Your task to perform on an android device: change the clock display to digital Image 0: 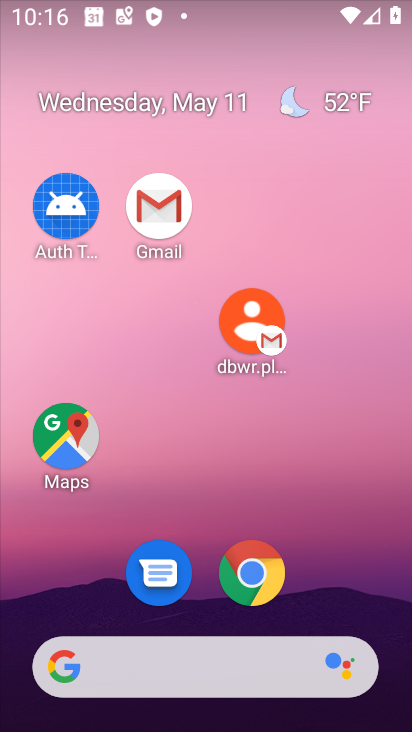
Step 0: drag from (374, 655) to (60, 17)
Your task to perform on an android device: change the clock display to digital Image 1: 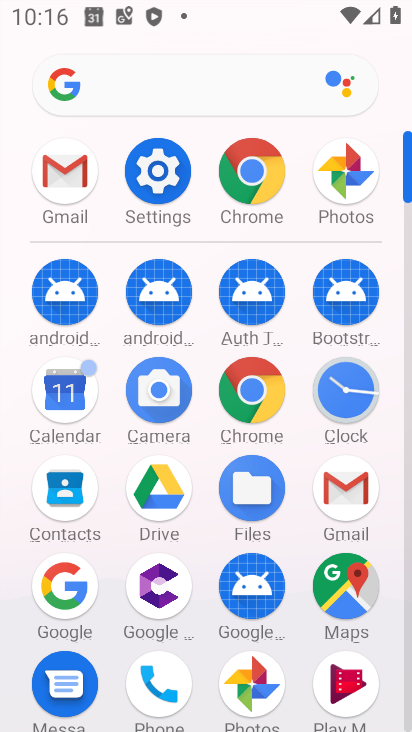
Step 1: click (344, 395)
Your task to perform on an android device: change the clock display to digital Image 2: 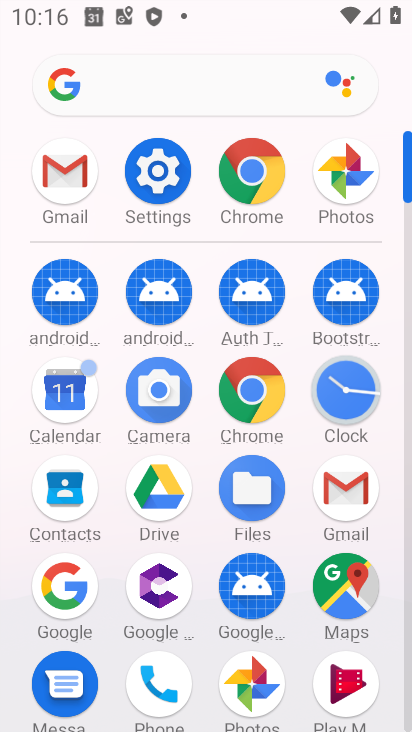
Step 2: click (343, 395)
Your task to perform on an android device: change the clock display to digital Image 3: 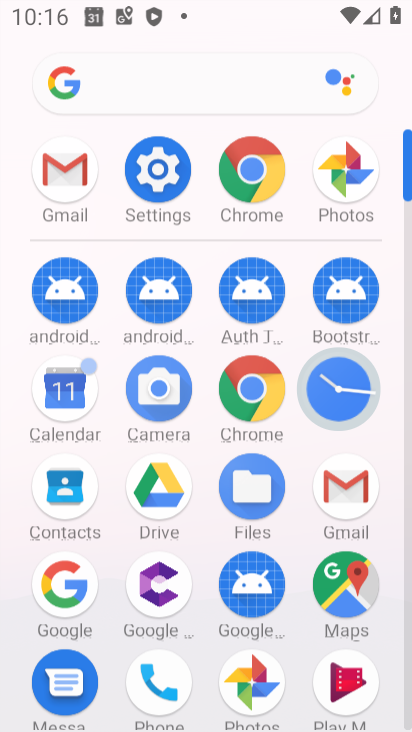
Step 3: click (343, 395)
Your task to perform on an android device: change the clock display to digital Image 4: 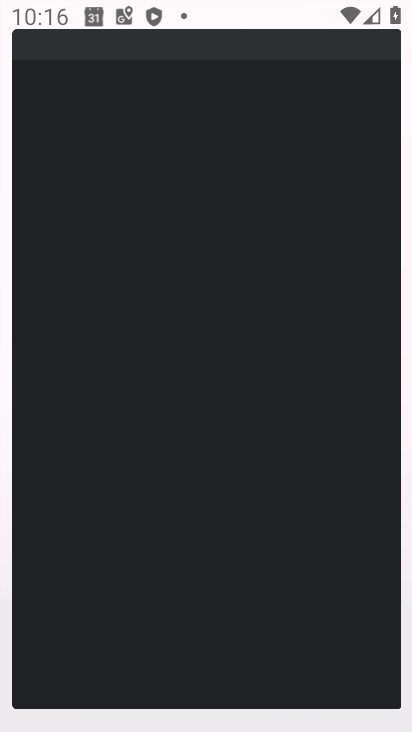
Step 4: click (343, 395)
Your task to perform on an android device: change the clock display to digital Image 5: 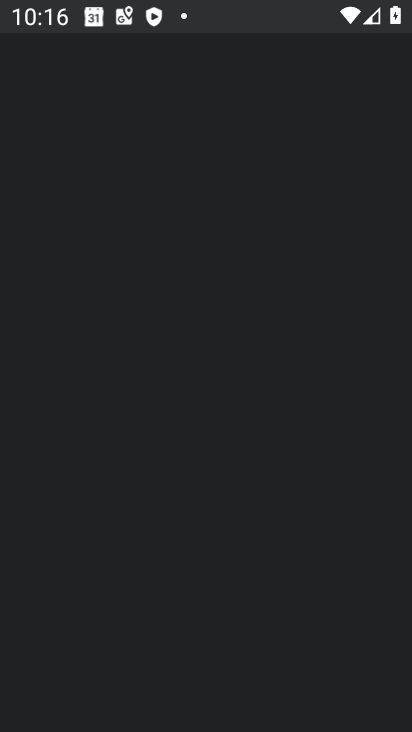
Step 5: click (343, 395)
Your task to perform on an android device: change the clock display to digital Image 6: 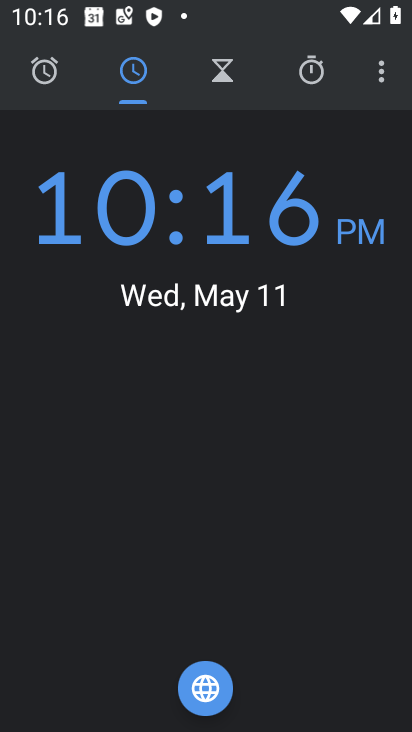
Step 6: click (378, 75)
Your task to perform on an android device: change the clock display to digital Image 7: 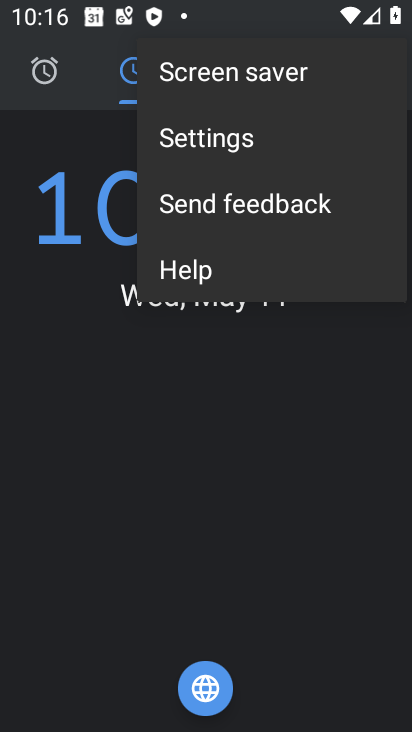
Step 7: click (207, 141)
Your task to perform on an android device: change the clock display to digital Image 8: 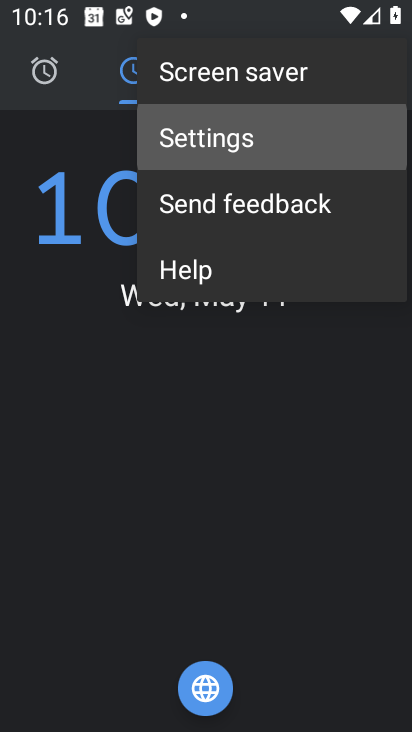
Step 8: click (207, 141)
Your task to perform on an android device: change the clock display to digital Image 9: 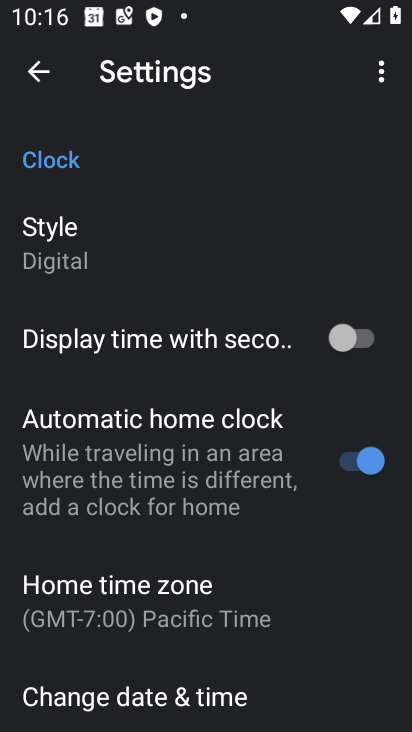
Step 9: drag from (200, 376) to (147, 72)
Your task to perform on an android device: change the clock display to digital Image 10: 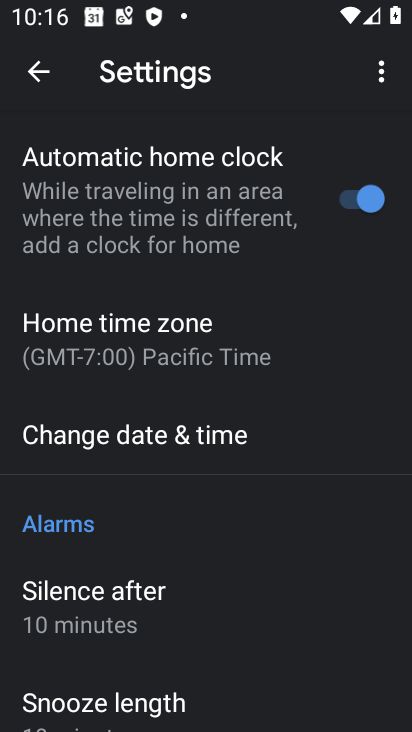
Step 10: drag from (155, 231) to (162, 475)
Your task to perform on an android device: change the clock display to digital Image 11: 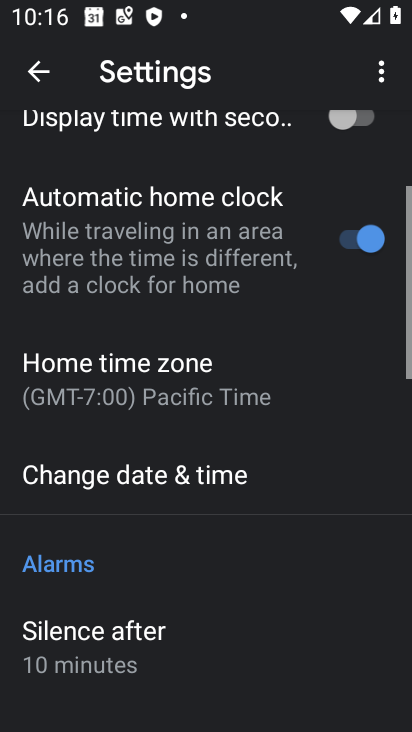
Step 11: drag from (126, 261) to (190, 541)
Your task to perform on an android device: change the clock display to digital Image 12: 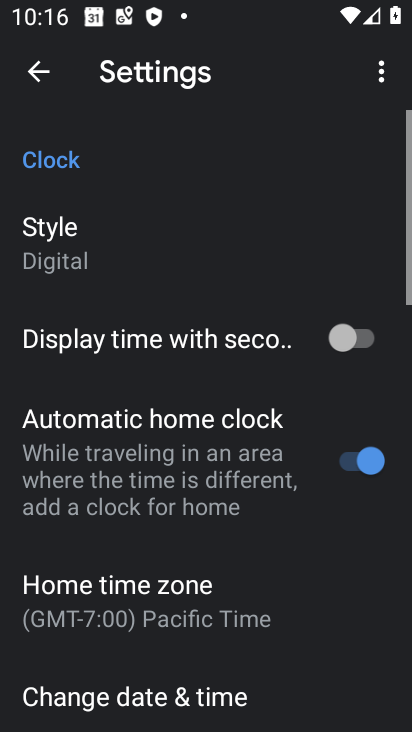
Step 12: drag from (179, 266) to (335, 587)
Your task to perform on an android device: change the clock display to digital Image 13: 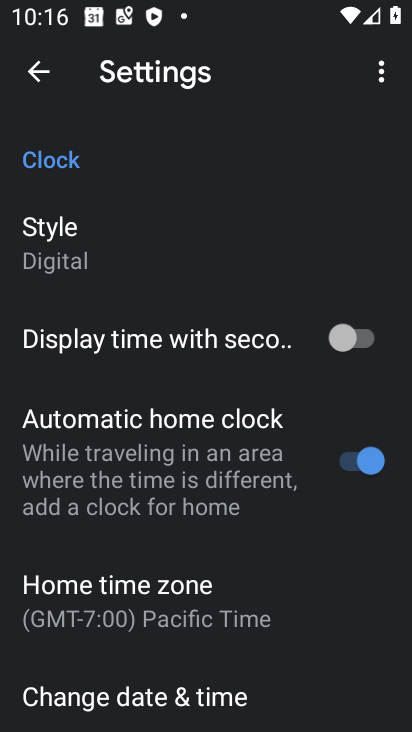
Step 13: drag from (249, 280) to (319, 518)
Your task to perform on an android device: change the clock display to digital Image 14: 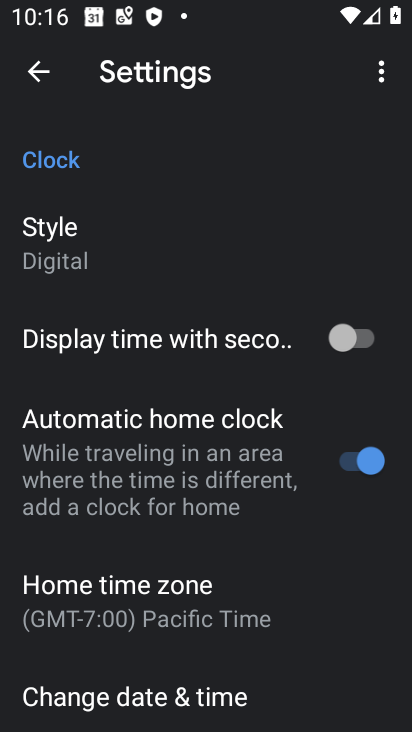
Step 14: click (341, 329)
Your task to perform on an android device: change the clock display to digital Image 15: 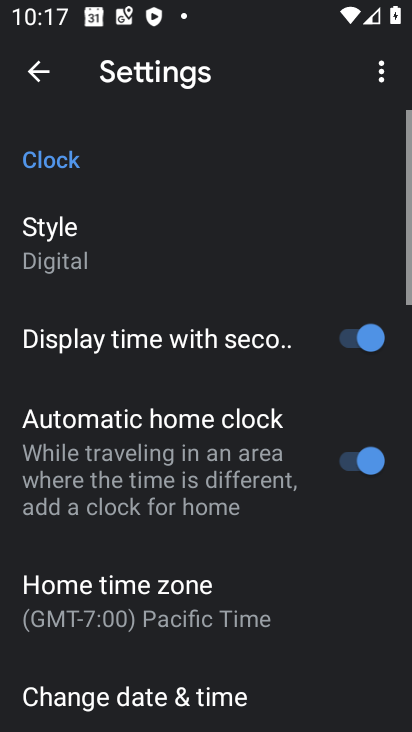
Step 15: click (342, 328)
Your task to perform on an android device: change the clock display to digital Image 16: 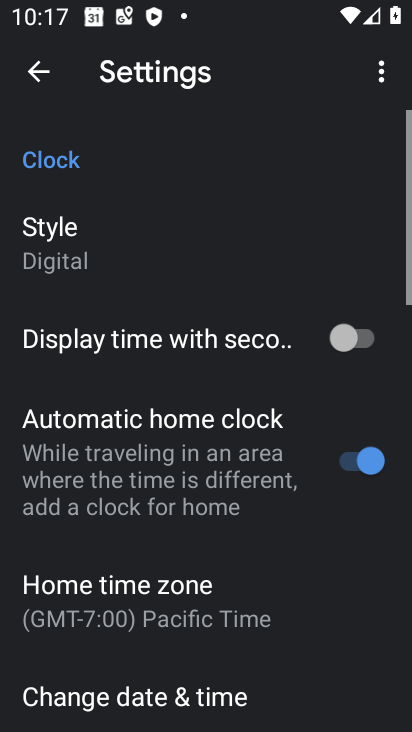
Step 16: click (377, 331)
Your task to perform on an android device: change the clock display to digital Image 17: 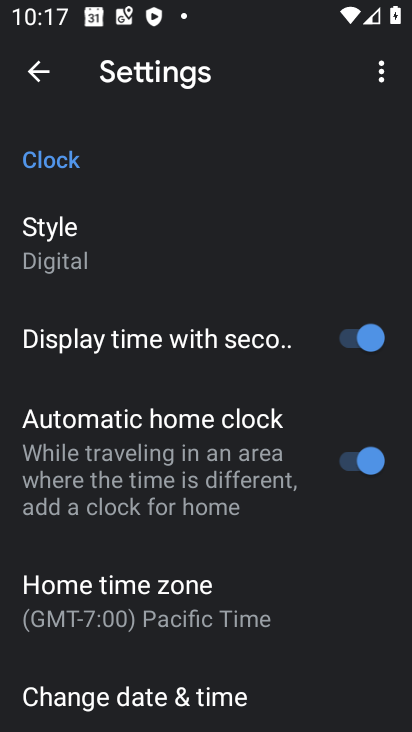
Step 17: click (374, 334)
Your task to perform on an android device: change the clock display to digital Image 18: 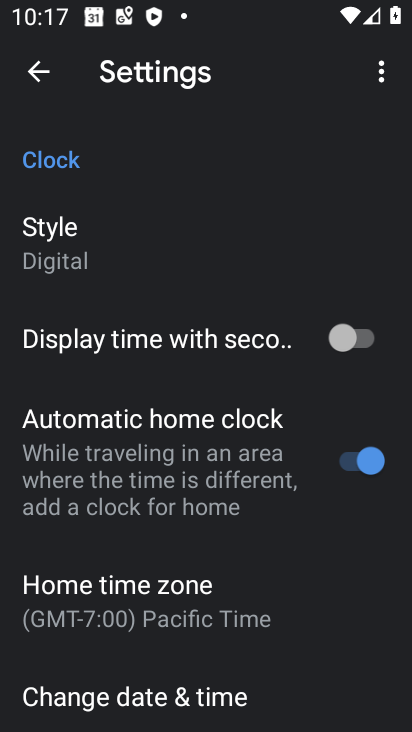
Step 18: task complete